Your task to perform on an android device: show emergency info Image 0: 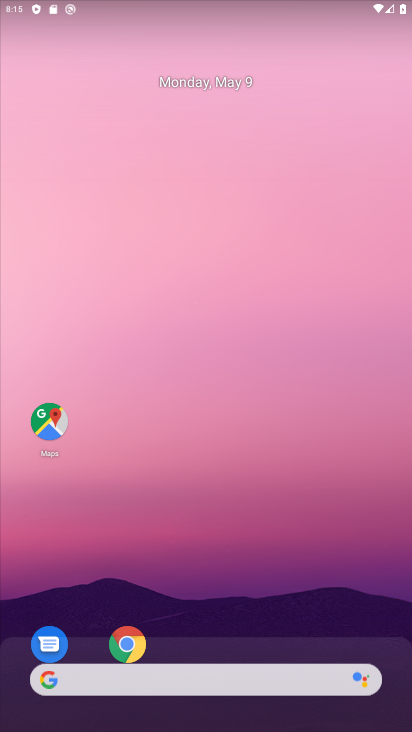
Step 0: drag from (272, 607) to (172, 158)
Your task to perform on an android device: show emergency info Image 1: 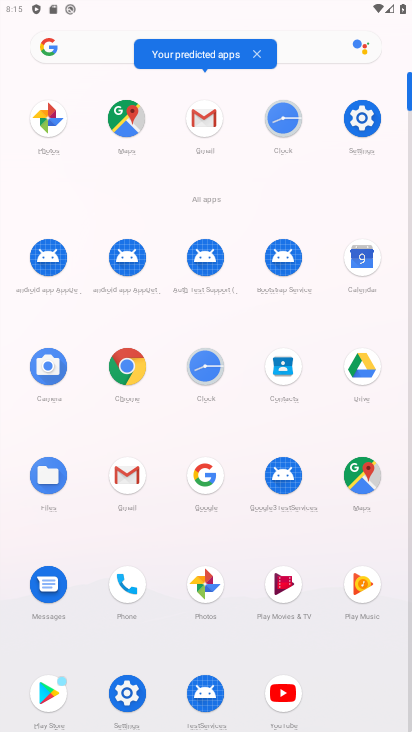
Step 1: click (362, 117)
Your task to perform on an android device: show emergency info Image 2: 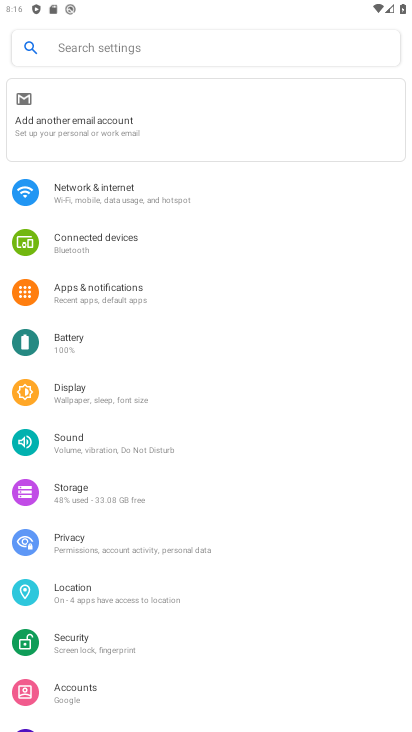
Step 2: drag from (161, 634) to (160, 263)
Your task to perform on an android device: show emergency info Image 3: 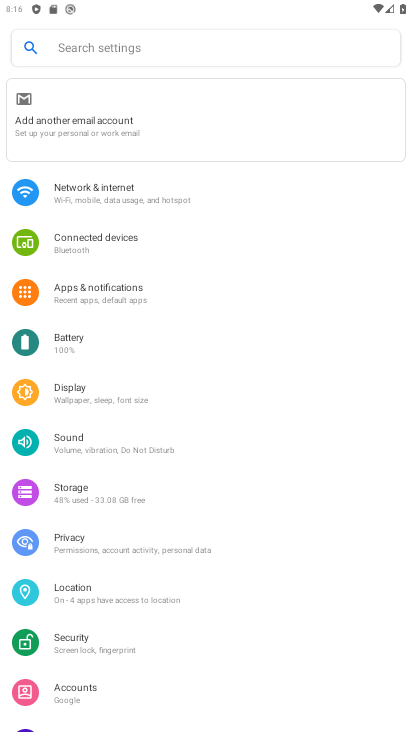
Step 3: drag from (190, 566) to (169, 185)
Your task to perform on an android device: show emergency info Image 4: 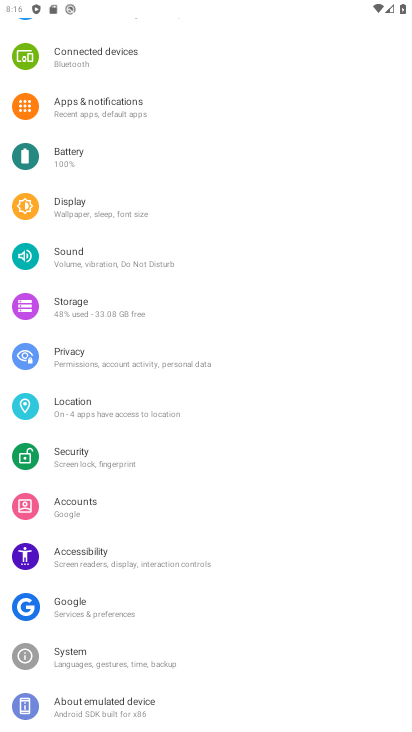
Step 4: click (102, 703)
Your task to perform on an android device: show emergency info Image 5: 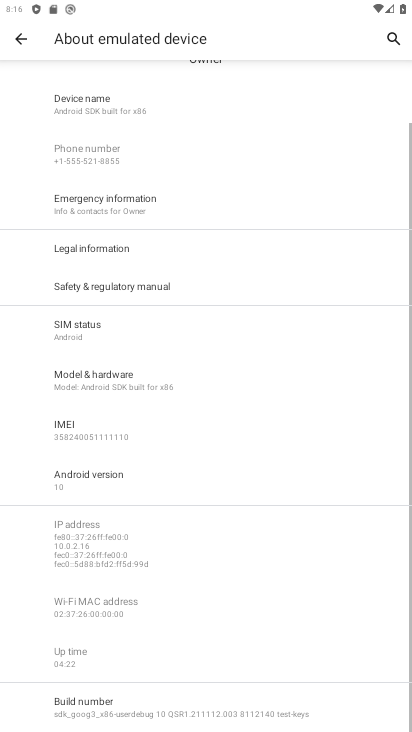
Step 5: drag from (162, 271) to (58, 178)
Your task to perform on an android device: show emergency info Image 6: 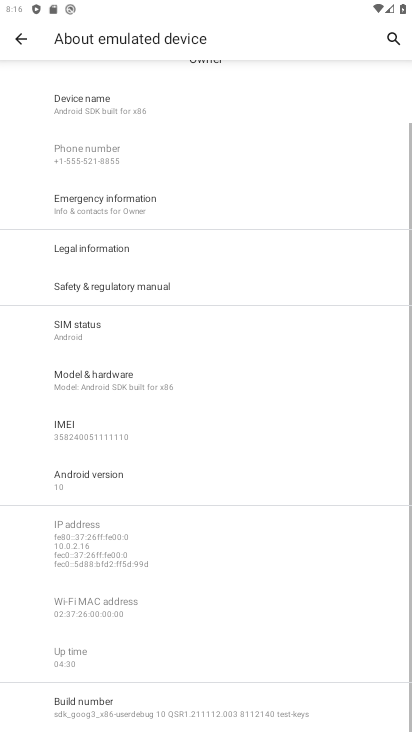
Step 6: click (89, 205)
Your task to perform on an android device: show emergency info Image 7: 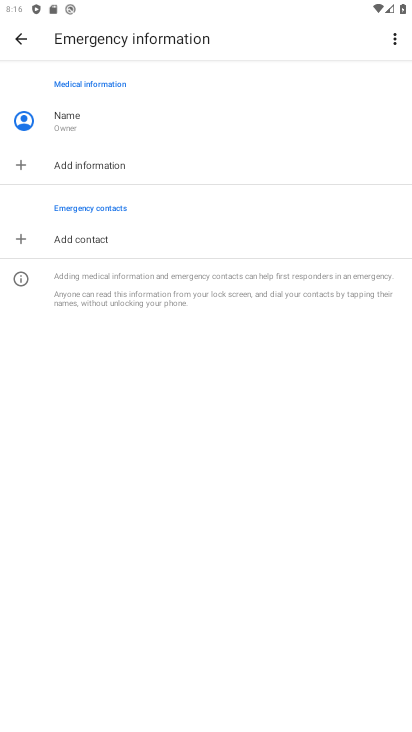
Step 7: task complete